Your task to perform on an android device: turn off picture-in-picture Image 0: 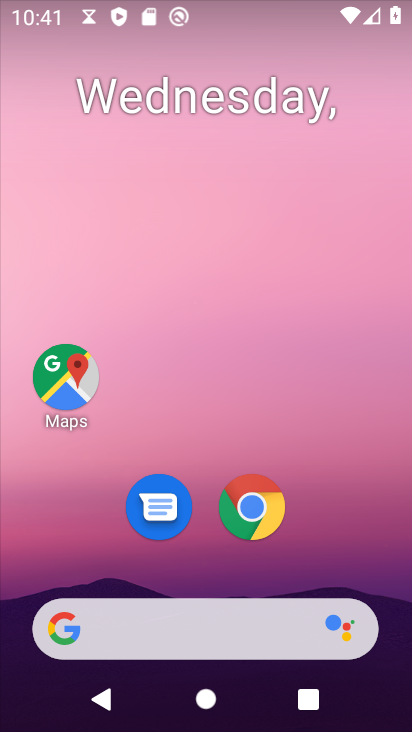
Step 0: drag from (282, 666) to (293, 80)
Your task to perform on an android device: turn off picture-in-picture Image 1: 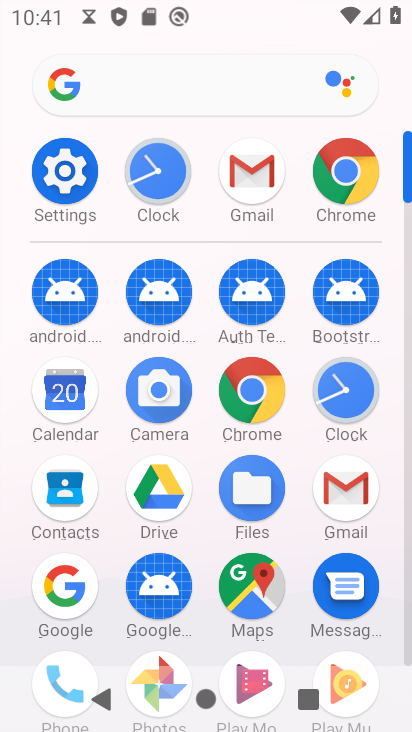
Step 1: click (54, 183)
Your task to perform on an android device: turn off picture-in-picture Image 2: 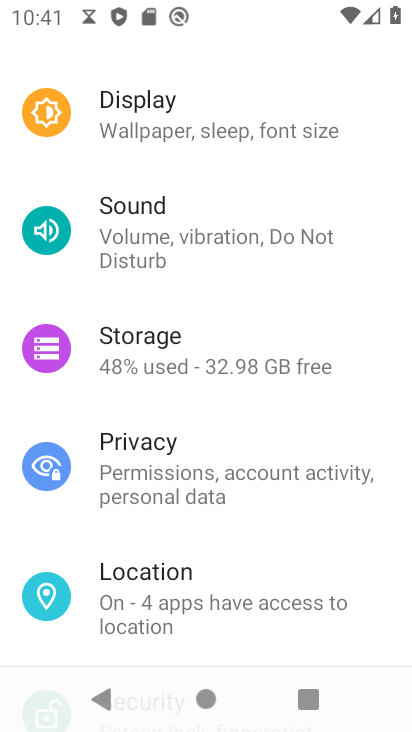
Step 2: drag from (109, 157) to (34, 399)
Your task to perform on an android device: turn off picture-in-picture Image 3: 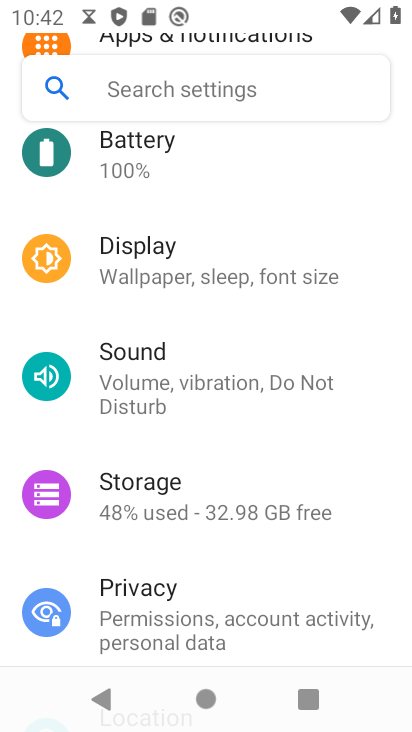
Step 3: click (202, 86)
Your task to perform on an android device: turn off picture-in-picture Image 4: 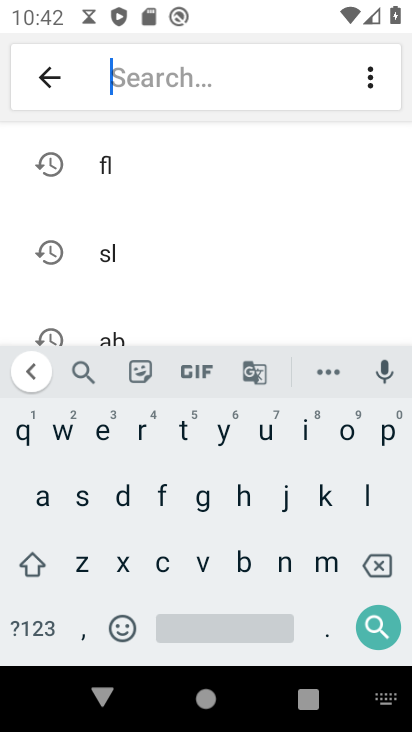
Step 4: click (389, 439)
Your task to perform on an android device: turn off picture-in-picture Image 5: 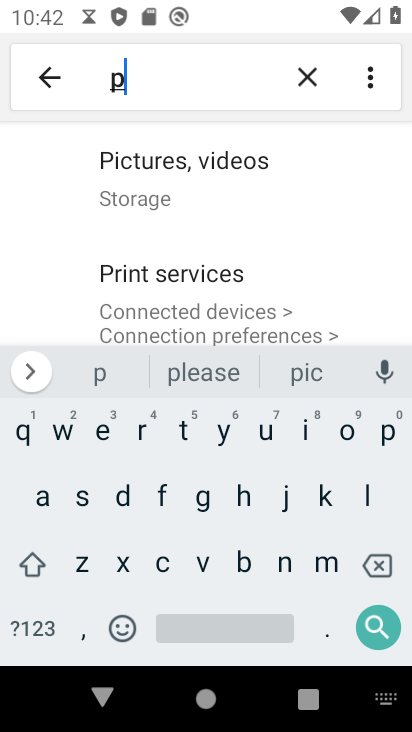
Step 5: click (303, 428)
Your task to perform on an android device: turn off picture-in-picture Image 6: 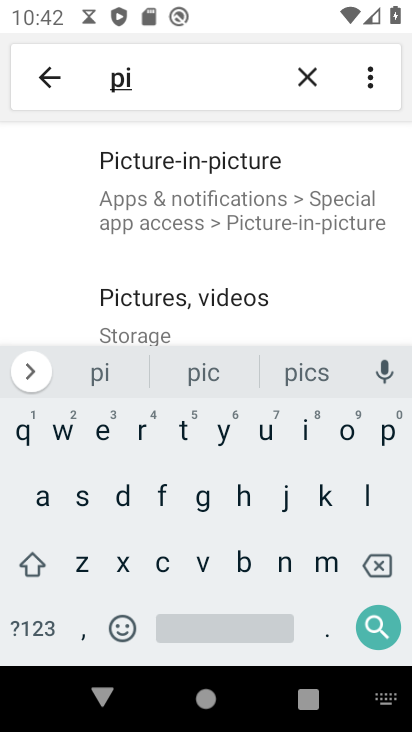
Step 6: click (237, 189)
Your task to perform on an android device: turn off picture-in-picture Image 7: 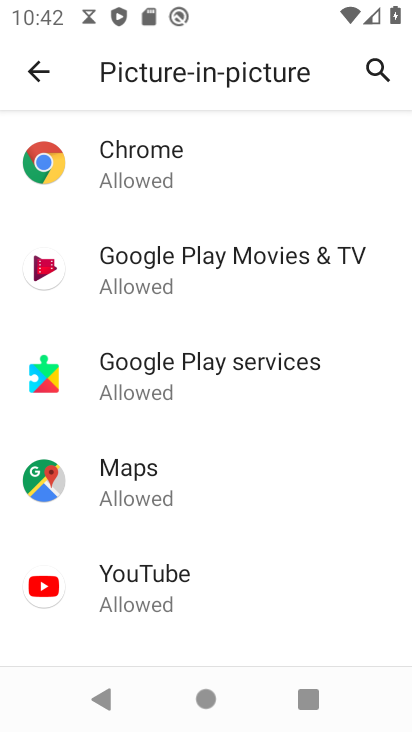
Step 7: task complete